Your task to perform on an android device: add a contact Image 0: 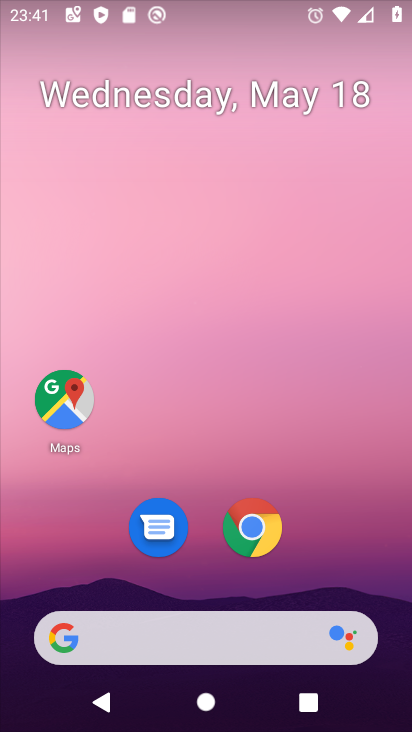
Step 0: drag from (354, 593) to (301, 184)
Your task to perform on an android device: add a contact Image 1: 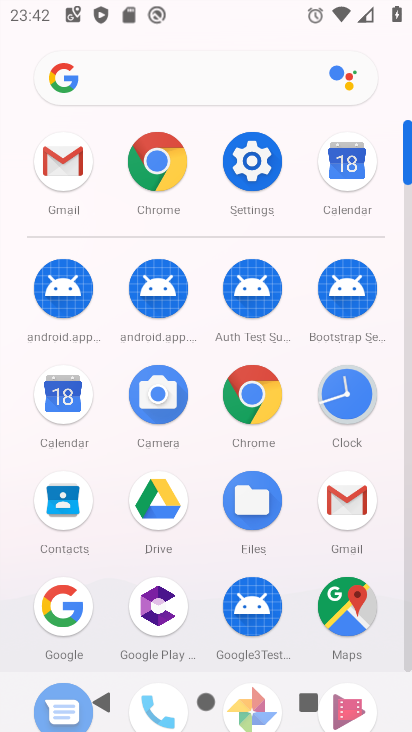
Step 1: click (58, 543)
Your task to perform on an android device: add a contact Image 2: 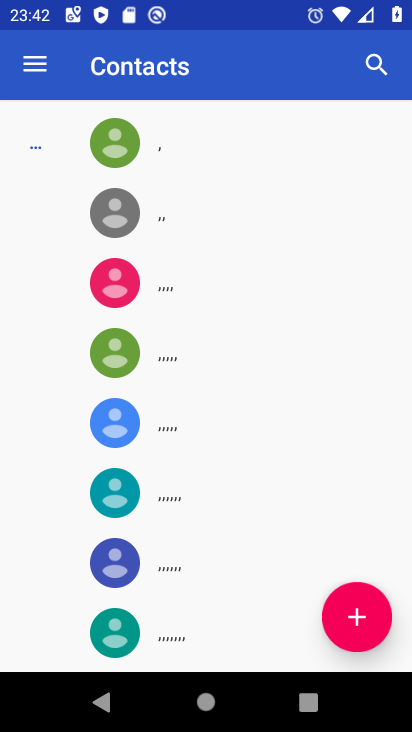
Step 2: click (367, 624)
Your task to perform on an android device: add a contact Image 3: 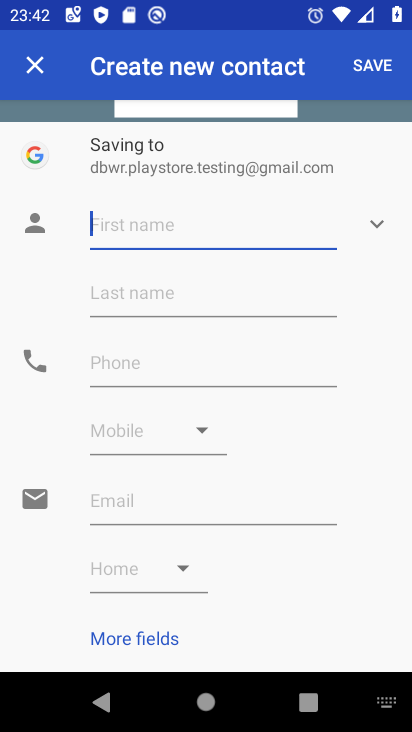
Step 3: type "adwaaass"
Your task to perform on an android device: add a contact Image 4: 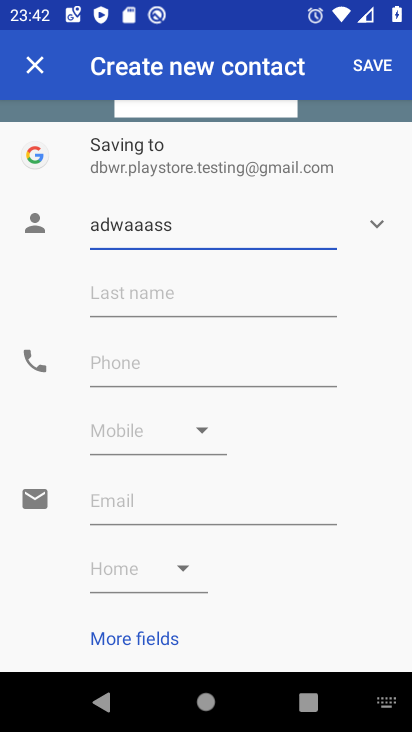
Step 4: click (198, 315)
Your task to perform on an android device: add a contact Image 5: 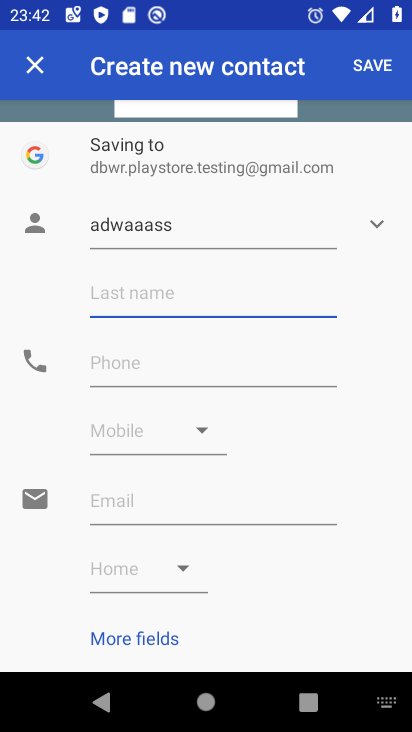
Step 5: type "fwfsd"
Your task to perform on an android device: add a contact Image 6: 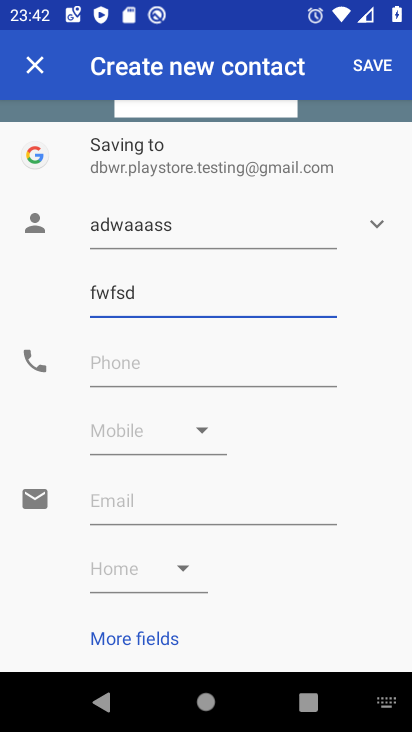
Step 6: click (196, 373)
Your task to perform on an android device: add a contact Image 7: 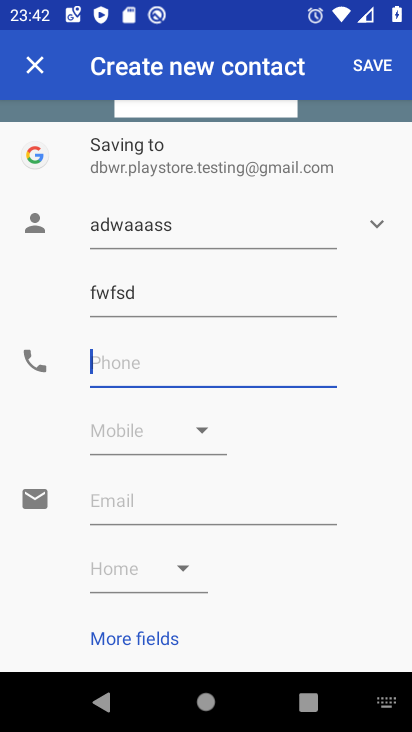
Step 7: type "342342343242"
Your task to perform on an android device: add a contact Image 8: 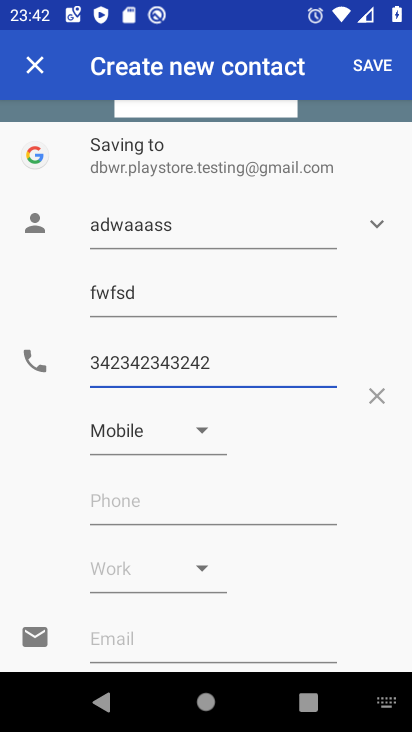
Step 8: click (386, 81)
Your task to perform on an android device: add a contact Image 9: 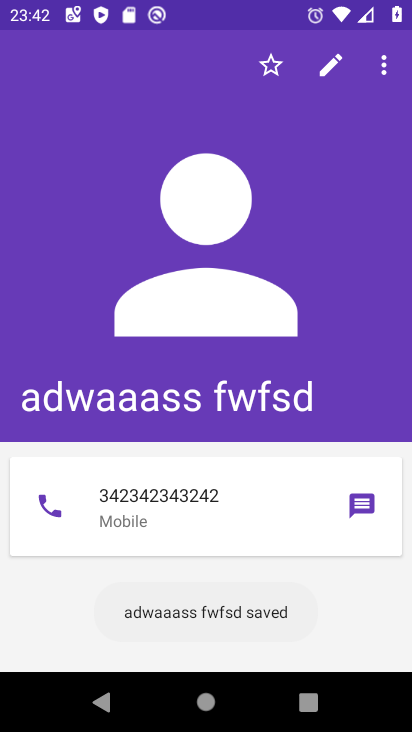
Step 9: task complete